Your task to perform on an android device: Open Chrome and go to settings Image 0: 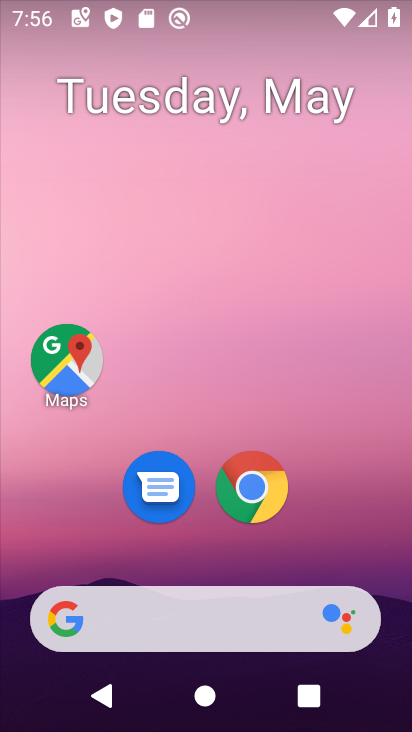
Step 0: drag from (378, 566) to (379, 235)
Your task to perform on an android device: Open Chrome and go to settings Image 1: 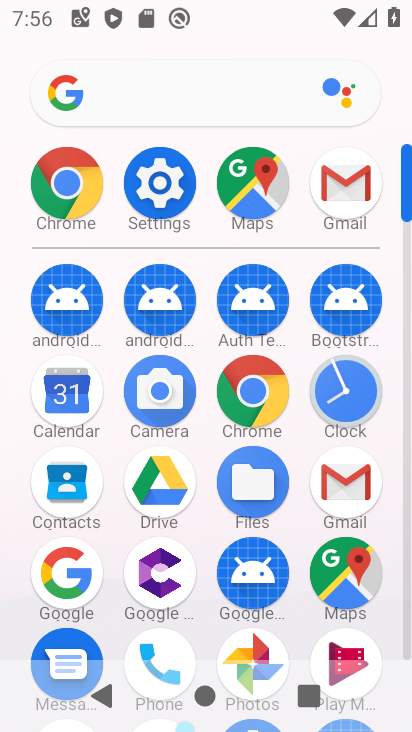
Step 1: click (272, 402)
Your task to perform on an android device: Open Chrome and go to settings Image 2: 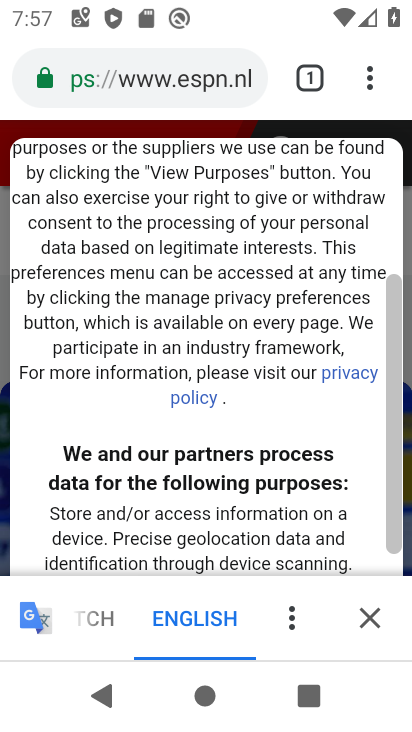
Step 2: click (371, 83)
Your task to perform on an android device: Open Chrome and go to settings Image 3: 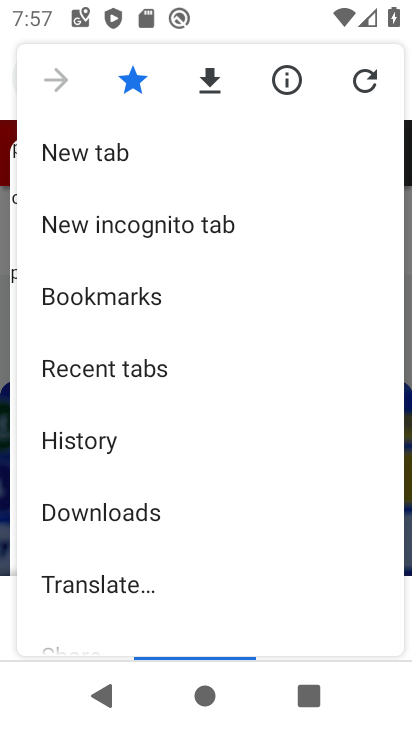
Step 3: drag from (337, 339) to (328, 273)
Your task to perform on an android device: Open Chrome and go to settings Image 4: 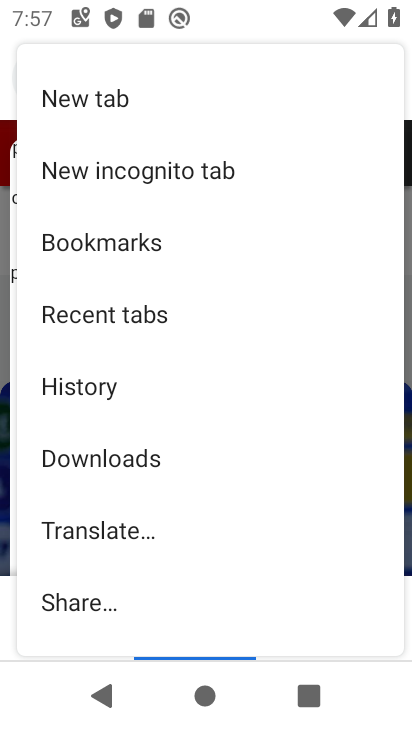
Step 4: drag from (327, 359) to (326, 284)
Your task to perform on an android device: Open Chrome and go to settings Image 5: 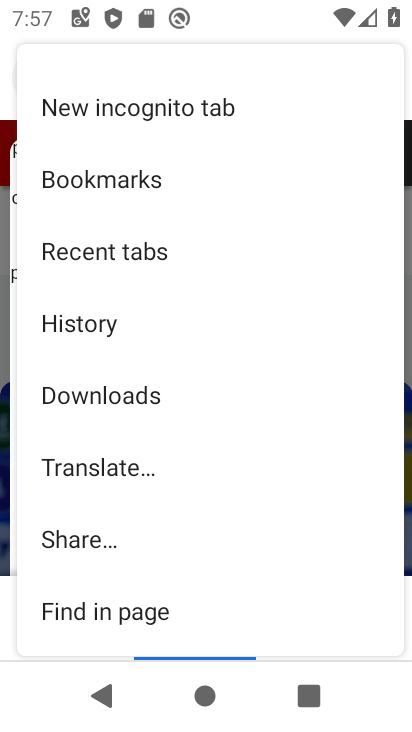
Step 5: drag from (319, 351) to (312, 243)
Your task to perform on an android device: Open Chrome and go to settings Image 6: 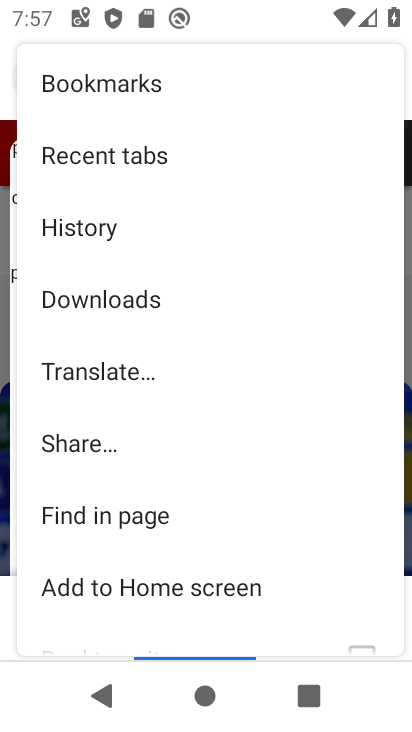
Step 6: drag from (292, 361) to (312, 211)
Your task to perform on an android device: Open Chrome and go to settings Image 7: 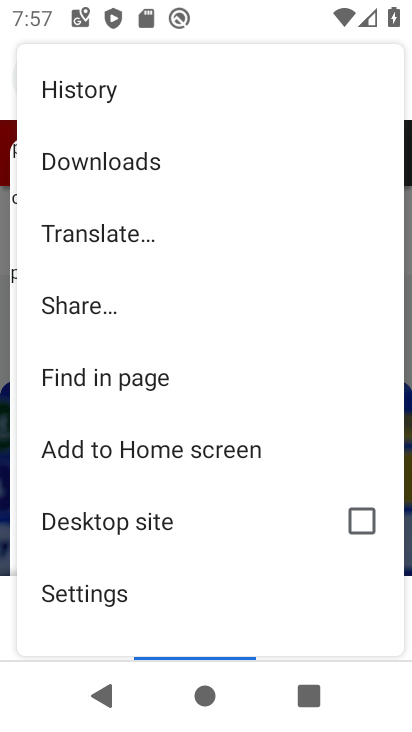
Step 7: click (114, 602)
Your task to perform on an android device: Open Chrome and go to settings Image 8: 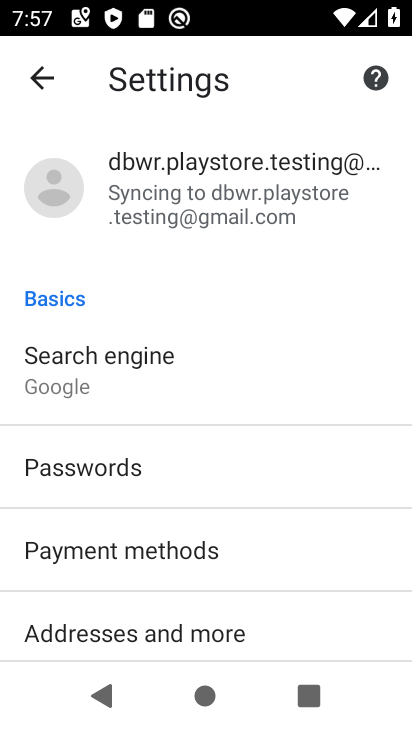
Step 8: task complete